Your task to perform on an android device: change notifications settings Image 0: 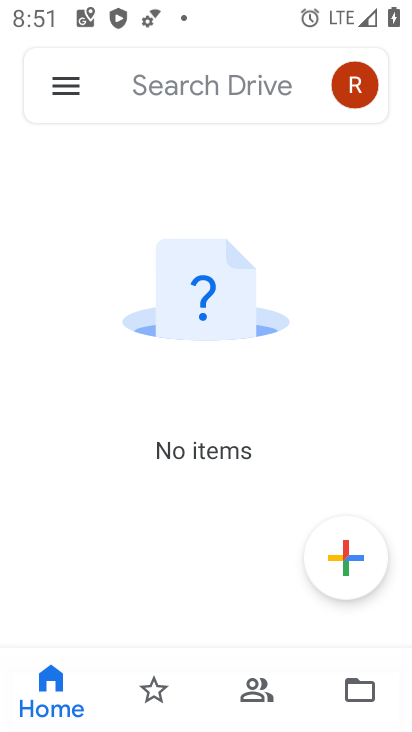
Step 0: press home button
Your task to perform on an android device: change notifications settings Image 1: 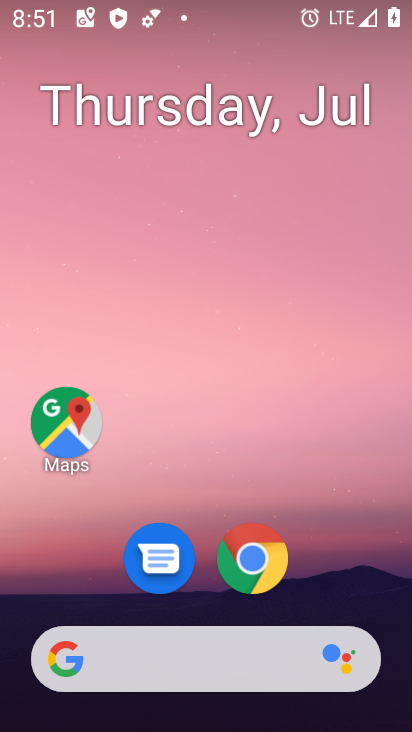
Step 1: drag from (150, 626) to (241, 47)
Your task to perform on an android device: change notifications settings Image 2: 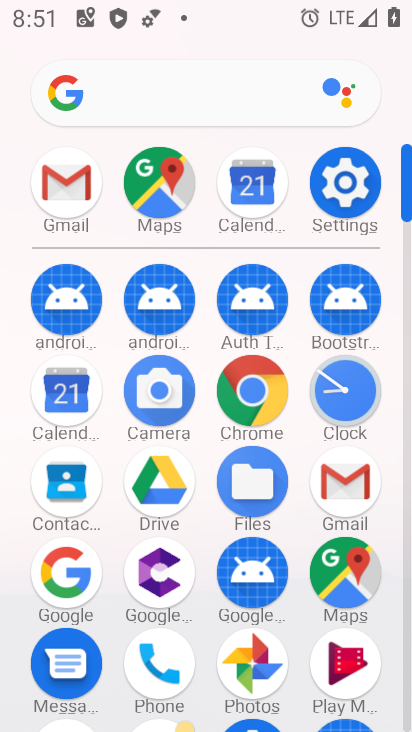
Step 2: click (342, 211)
Your task to perform on an android device: change notifications settings Image 3: 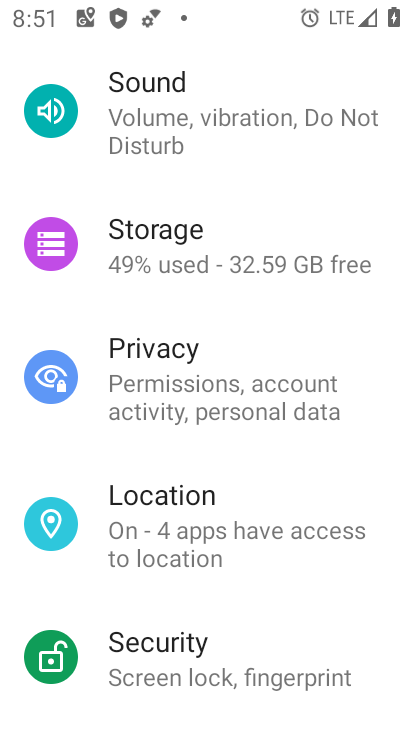
Step 3: drag from (138, 317) to (130, 655)
Your task to perform on an android device: change notifications settings Image 4: 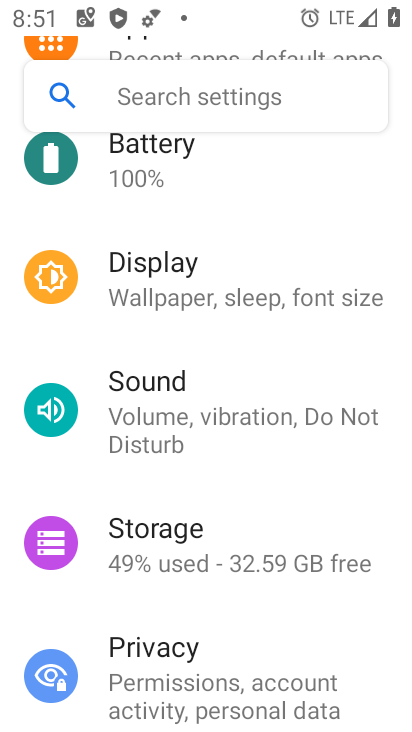
Step 4: drag from (182, 300) to (247, 729)
Your task to perform on an android device: change notifications settings Image 5: 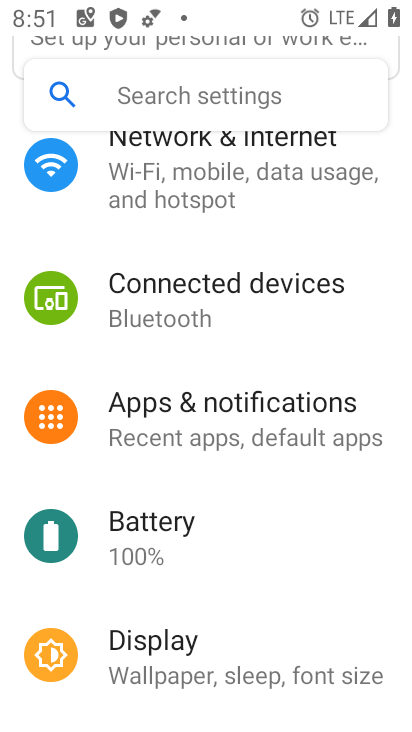
Step 5: click (271, 416)
Your task to perform on an android device: change notifications settings Image 6: 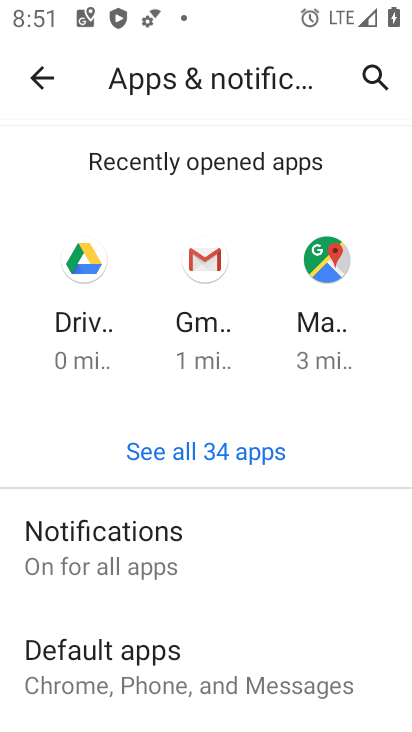
Step 6: drag from (144, 574) to (159, 250)
Your task to perform on an android device: change notifications settings Image 7: 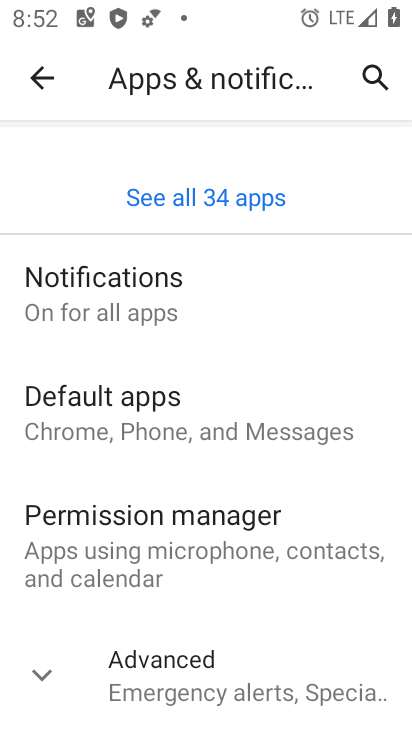
Step 7: drag from (196, 378) to (208, 297)
Your task to perform on an android device: change notifications settings Image 8: 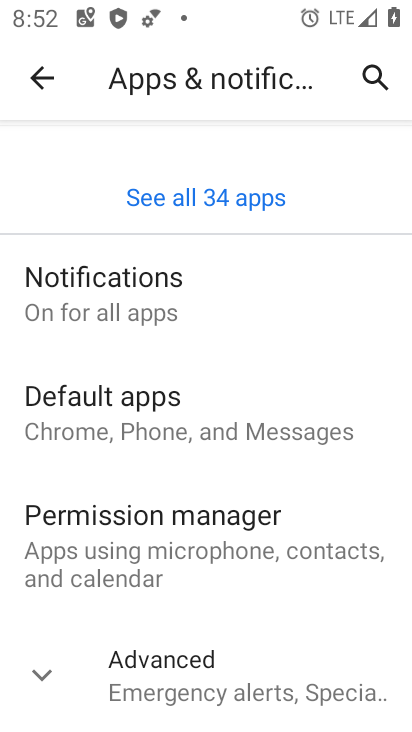
Step 8: click (146, 283)
Your task to perform on an android device: change notifications settings Image 9: 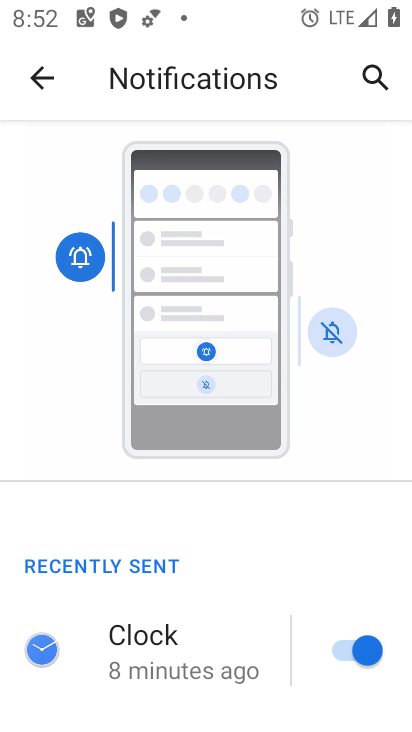
Step 9: click (350, 652)
Your task to perform on an android device: change notifications settings Image 10: 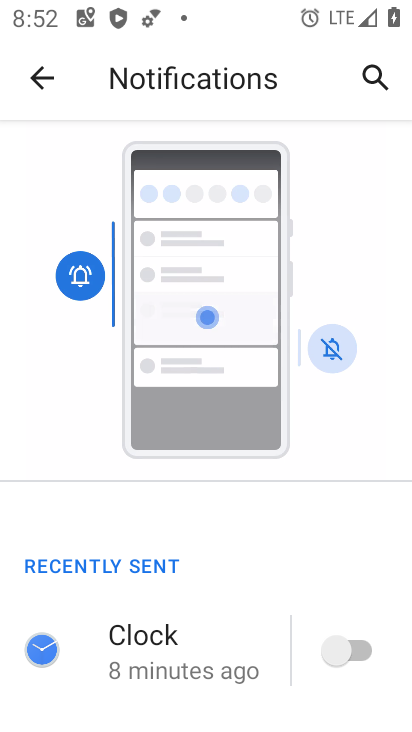
Step 10: task complete